Your task to perform on an android device: Open Google Chrome Image 0: 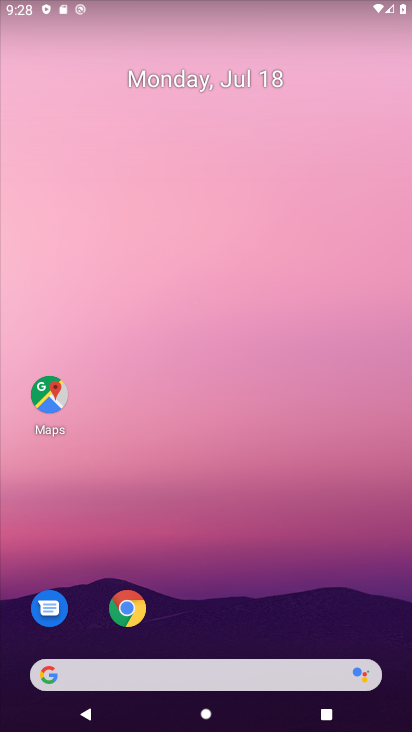
Step 0: click (277, 87)
Your task to perform on an android device: Open Google Chrome Image 1: 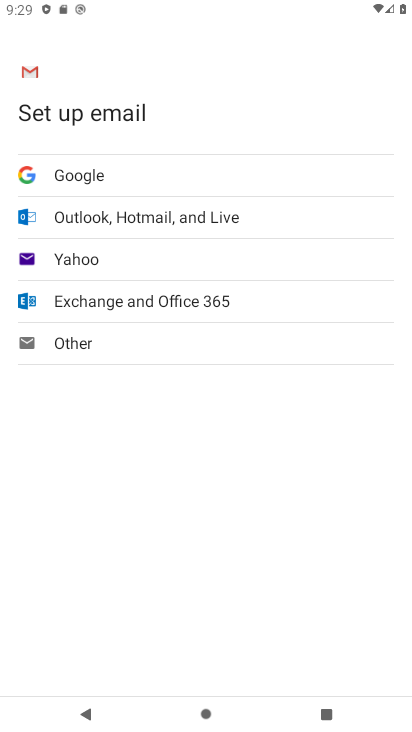
Step 1: drag from (304, 685) to (290, 117)
Your task to perform on an android device: Open Google Chrome Image 2: 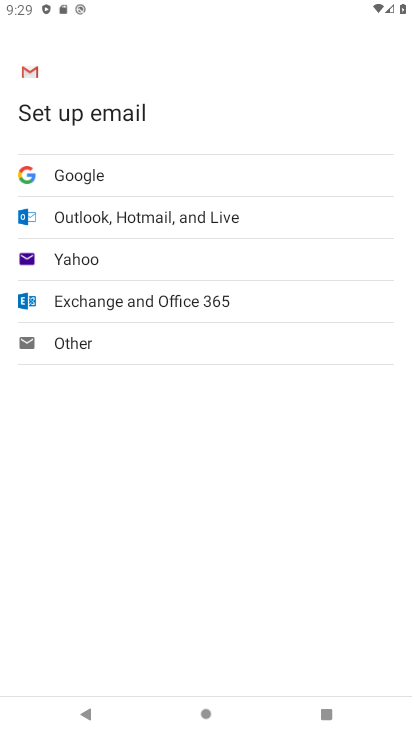
Step 2: press back button
Your task to perform on an android device: Open Google Chrome Image 3: 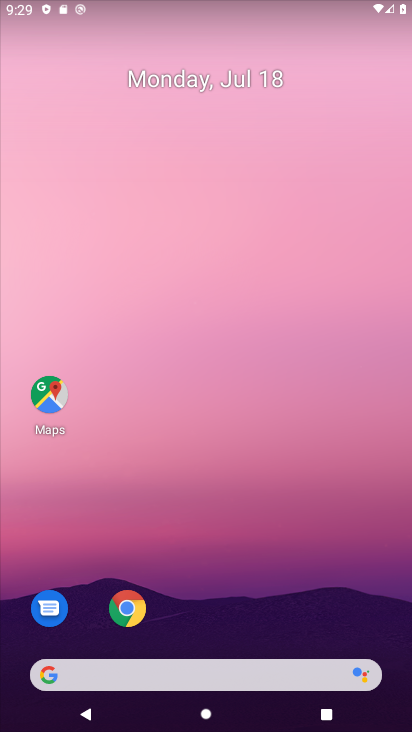
Step 3: drag from (262, 636) to (276, 152)
Your task to perform on an android device: Open Google Chrome Image 4: 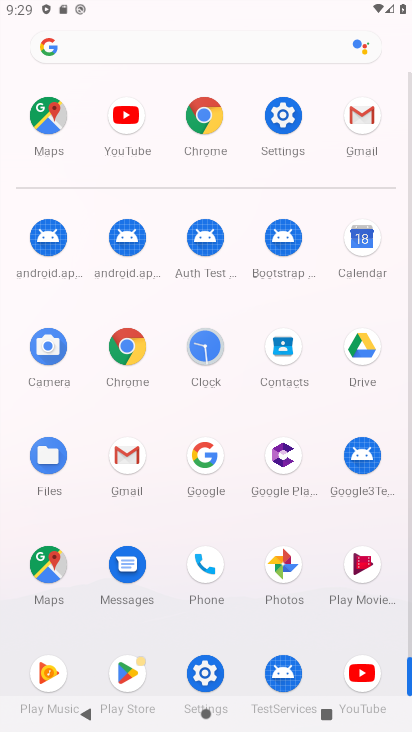
Step 4: click (210, 110)
Your task to perform on an android device: Open Google Chrome Image 5: 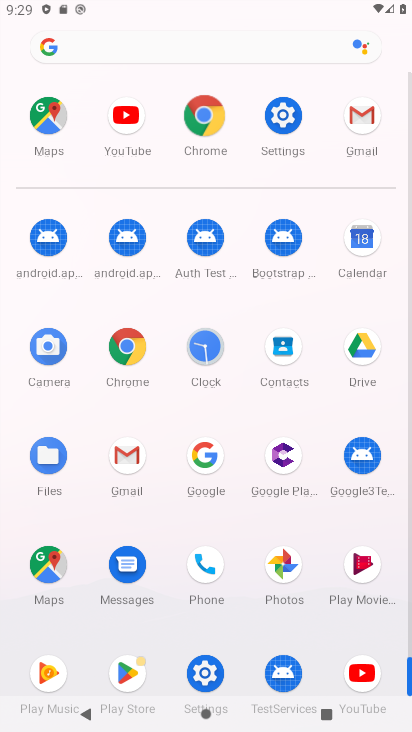
Step 5: click (210, 110)
Your task to perform on an android device: Open Google Chrome Image 6: 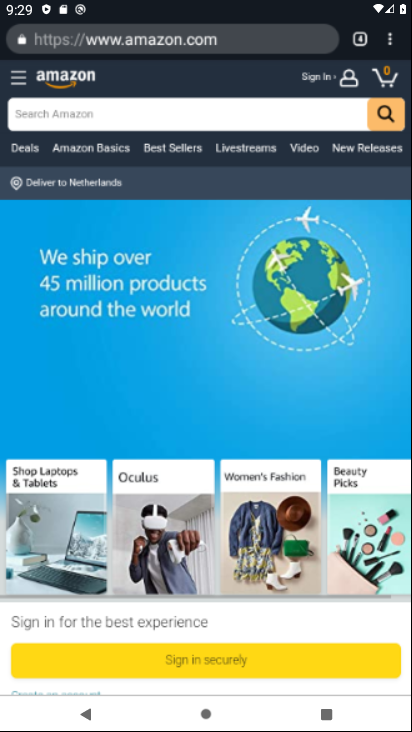
Step 6: click (210, 110)
Your task to perform on an android device: Open Google Chrome Image 7: 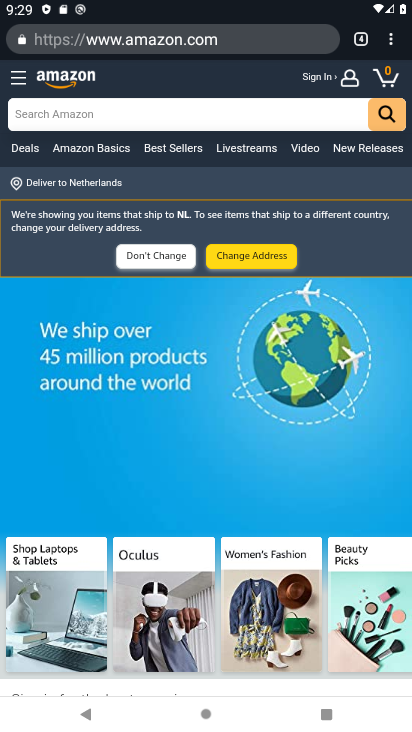
Step 7: task complete